Your task to perform on an android device: Open calendar and show me the first week of next month Image 0: 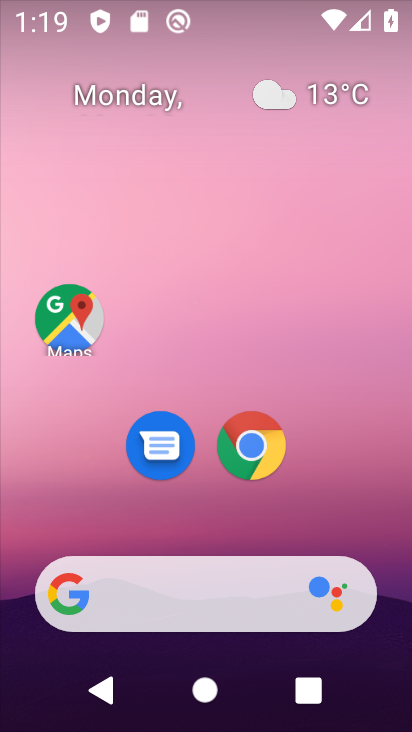
Step 0: drag from (259, 459) to (212, 135)
Your task to perform on an android device: Open calendar and show me the first week of next month Image 1: 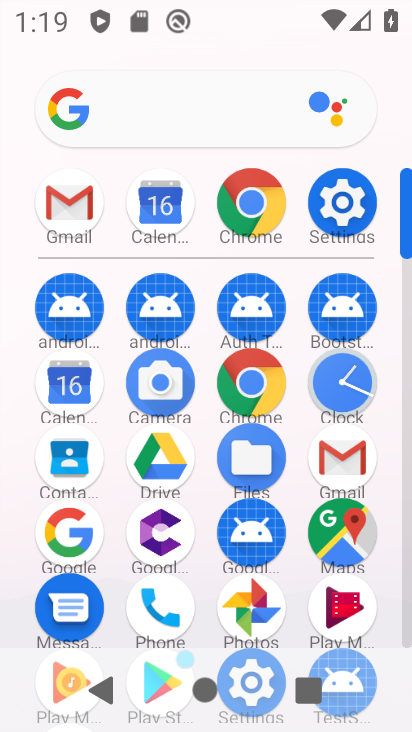
Step 1: click (70, 397)
Your task to perform on an android device: Open calendar and show me the first week of next month Image 2: 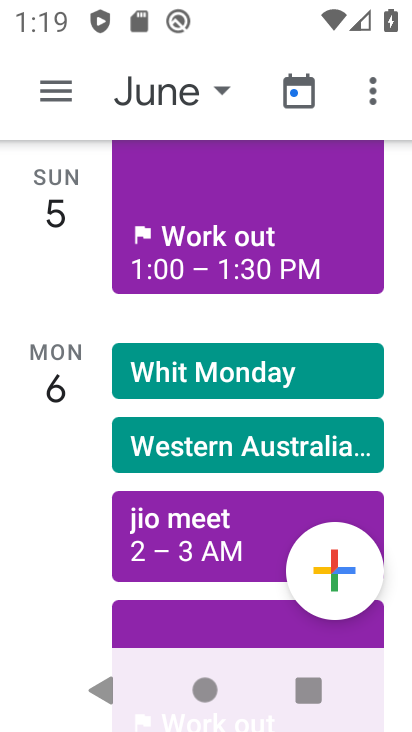
Step 2: click (58, 84)
Your task to perform on an android device: Open calendar and show me the first week of next month Image 3: 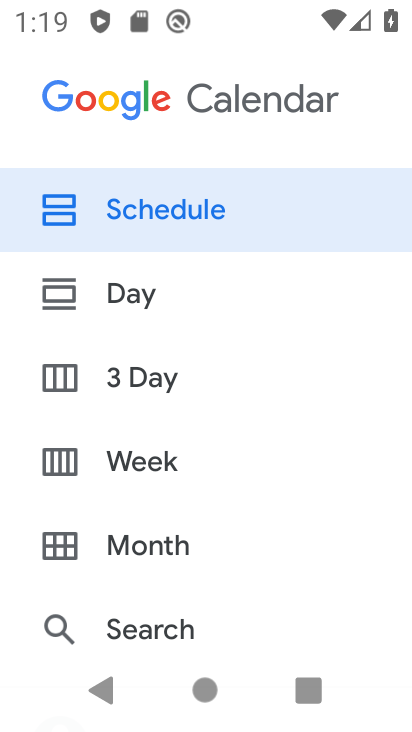
Step 3: click (139, 457)
Your task to perform on an android device: Open calendar and show me the first week of next month Image 4: 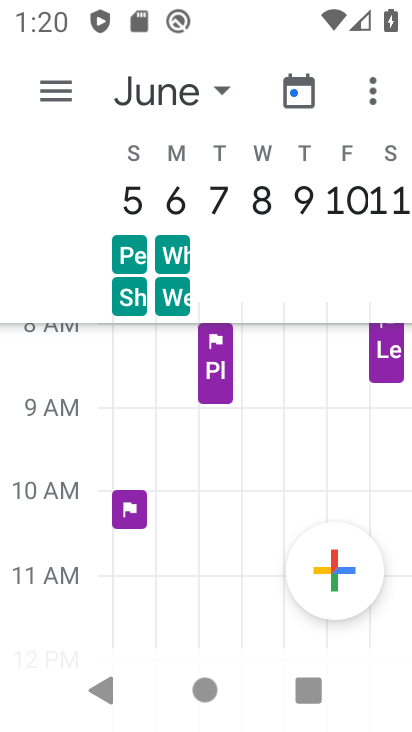
Step 4: task complete